Your task to perform on an android device: turn on the 12-hour format for clock Image 0: 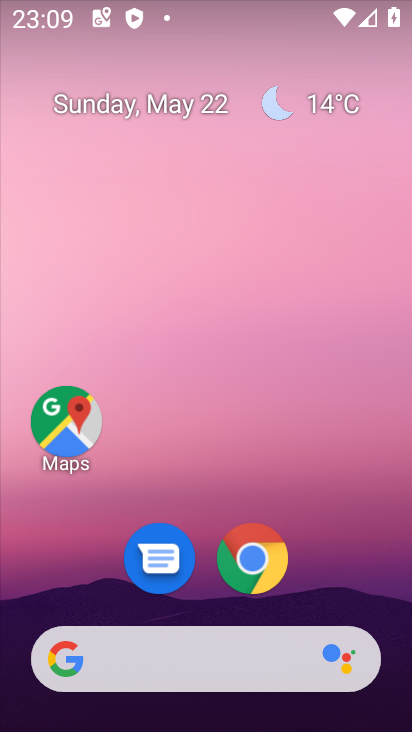
Step 0: drag from (333, 589) to (368, 29)
Your task to perform on an android device: turn on the 12-hour format for clock Image 1: 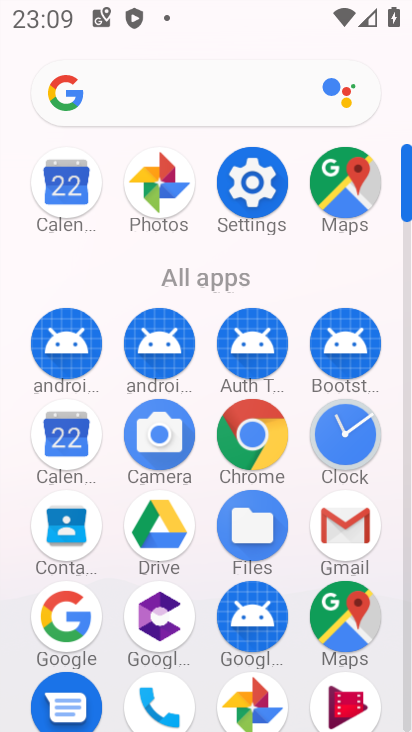
Step 1: click (345, 431)
Your task to perform on an android device: turn on the 12-hour format for clock Image 2: 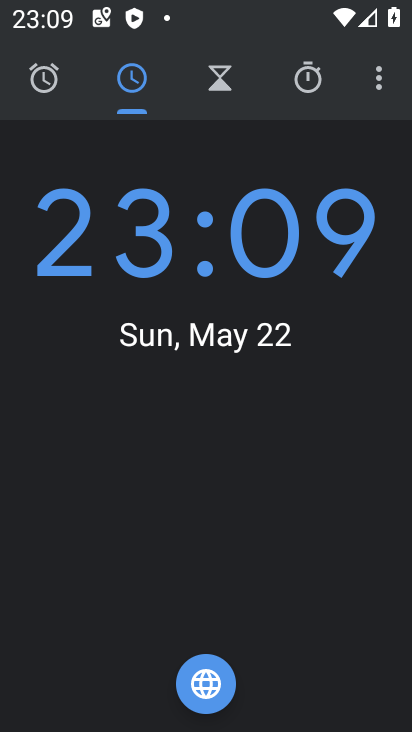
Step 2: click (379, 80)
Your task to perform on an android device: turn on the 12-hour format for clock Image 3: 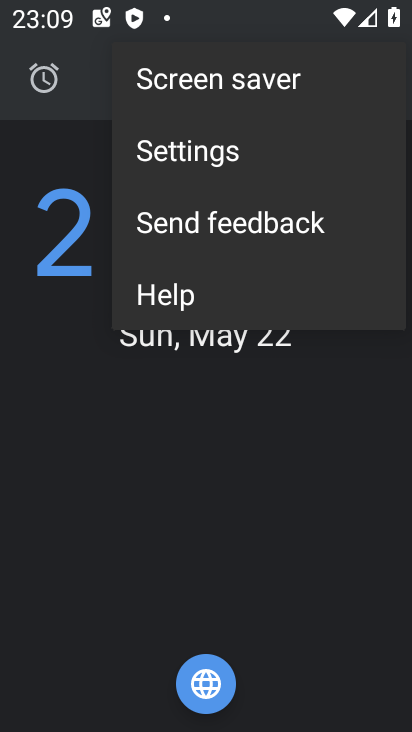
Step 3: click (181, 151)
Your task to perform on an android device: turn on the 12-hour format for clock Image 4: 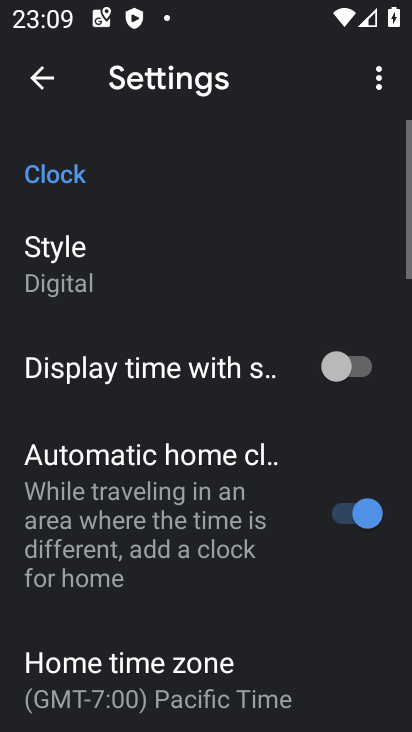
Step 4: drag from (176, 506) to (197, 188)
Your task to perform on an android device: turn on the 12-hour format for clock Image 5: 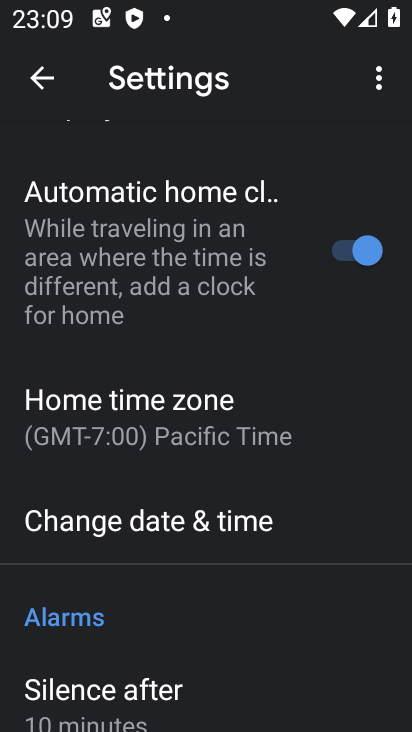
Step 5: click (183, 526)
Your task to perform on an android device: turn on the 12-hour format for clock Image 6: 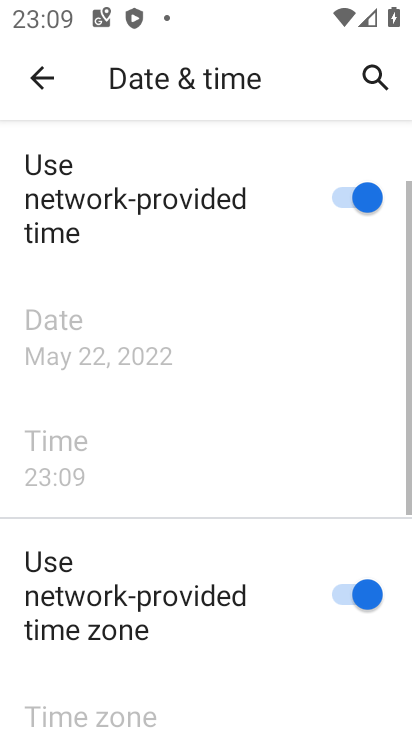
Step 6: drag from (180, 596) to (207, 95)
Your task to perform on an android device: turn on the 12-hour format for clock Image 7: 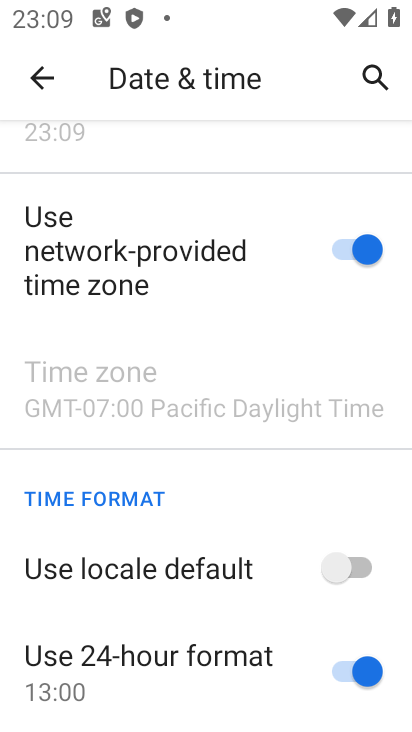
Step 7: click (357, 668)
Your task to perform on an android device: turn on the 12-hour format for clock Image 8: 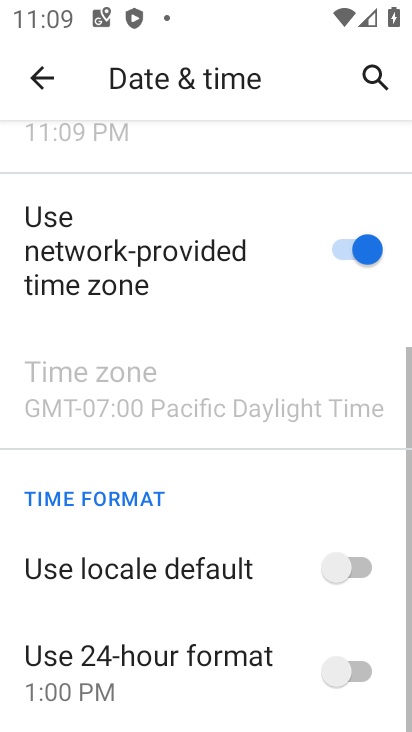
Step 8: click (325, 569)
Your task to perform on an android device: turn on the 12-hour format for clock Image 9: 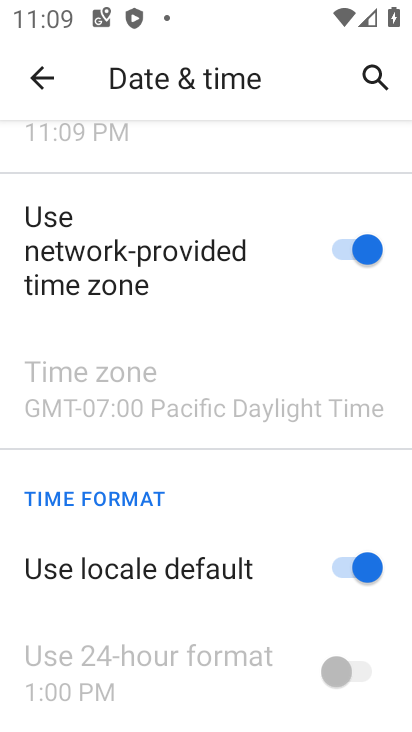
Step 9: task complete